Your task to perform on an android device: toggle show notifications on the lock screen Image 0: 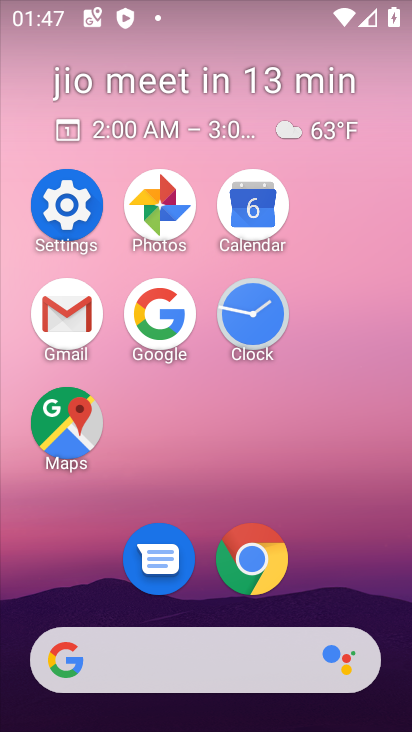
Step 0: click (46, 210)
Your task to perform on an android device: toggle show notifications on the lock screen Image 1: 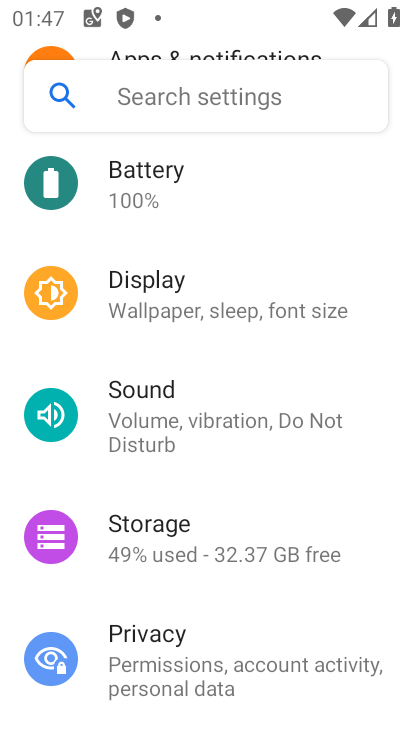
Step 1: drag from (286, 224) to (242, 619)
Your task to perform on an android device: toggle show notifications on the lock screen Image 2: 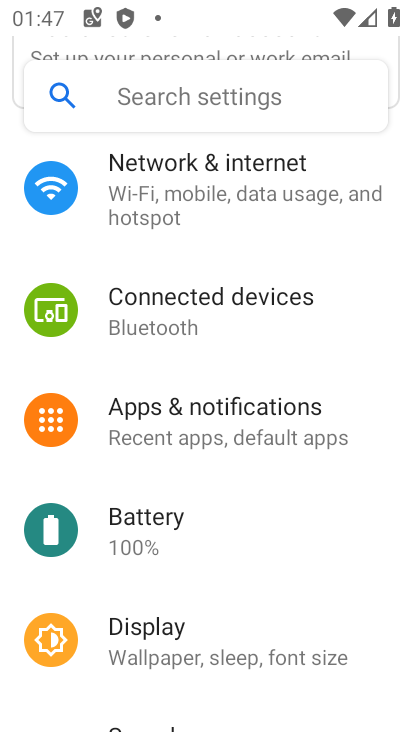
Step 2: click (297, 393)
Your task to perform on an android device: toggle show notifications on the lock screen Image 3: 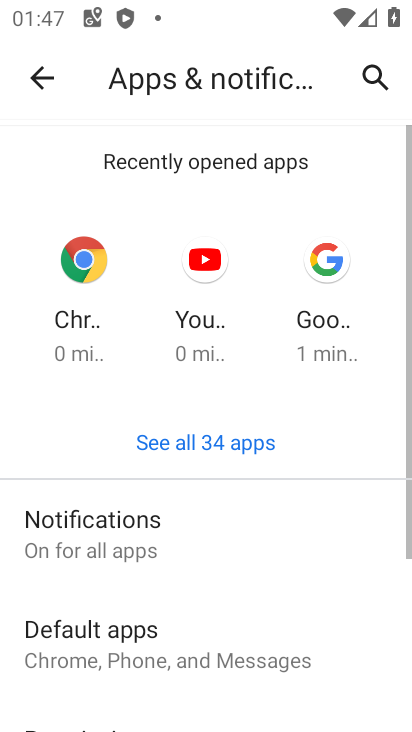
Step 3: click (201, 549)
Your task to perform on an android device: toggle show notifications on the lock screen Image 4: 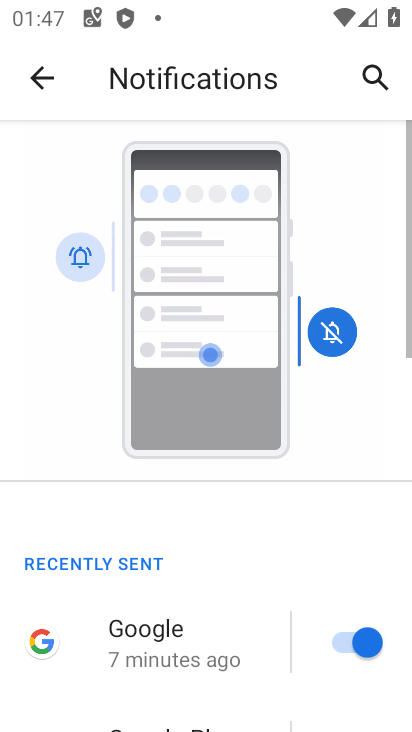
Step 4: drag from (201, 549) to (235, 160)
Your task to perform on an android device: toggle show notifications on the lock screen Image 5: 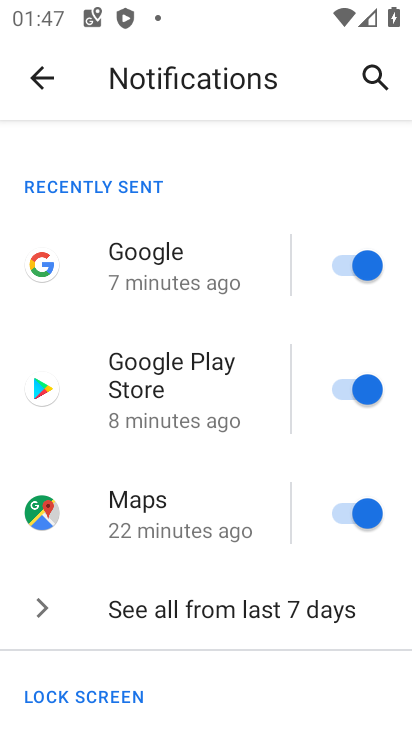
Step 5: drag from (149, 668) to (222, 285)
Your task to perform on an android device: toggle show notifications on the lock screen Image 6: 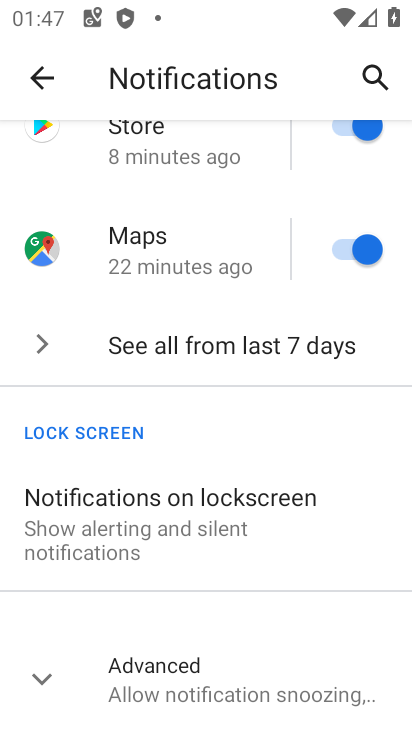
Step 6: click (179, 484)
Your task to perform on an android device: toggle show notifications on the lock screen Image 7: 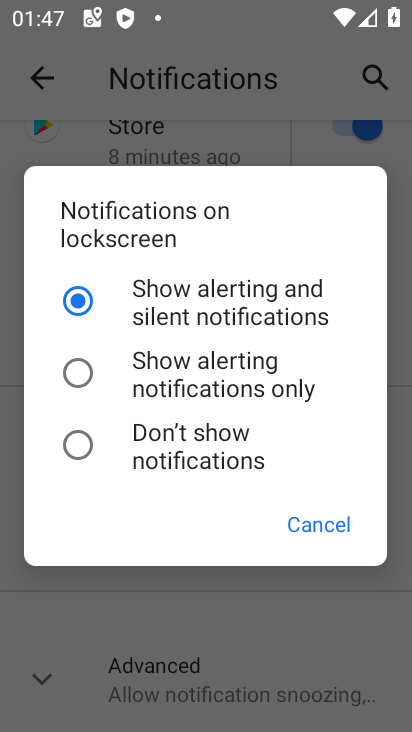
Step 7: click (154, 436)
Your task to perform on an android device: toggle show notifications on the lock screen Image 8: 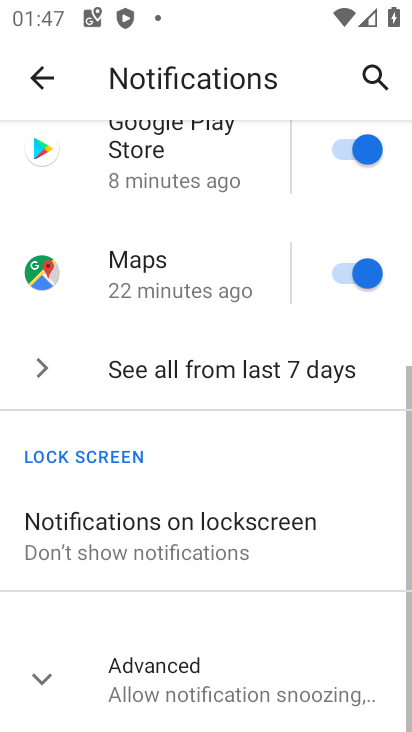
Step 8: task complete